Your task to perform on an android device: open a new tab in the chrome app Image 0: 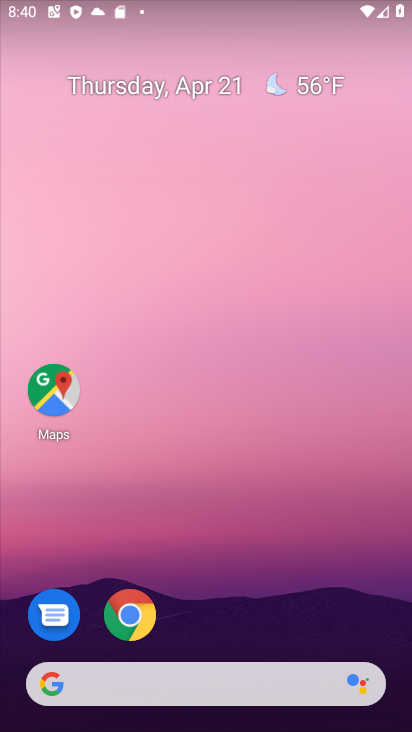
Step 0: click (136, 617)
Your task to perform on an android device: open a new tab in the chrome app Image 1: 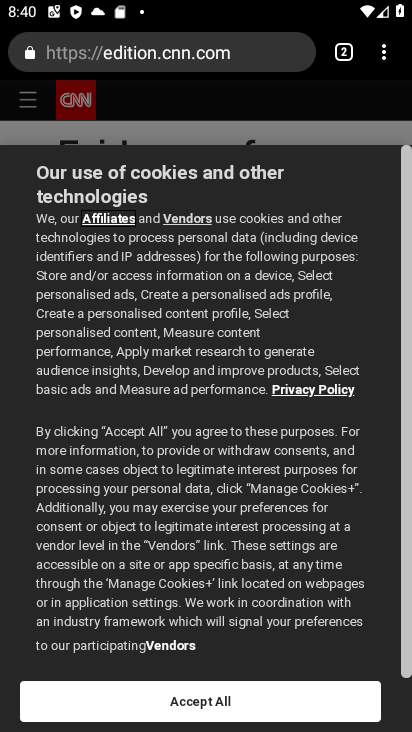
Step 1: click (338, 56)
Your task to perform on an android device: open a new tab in the chrome app Image 2: 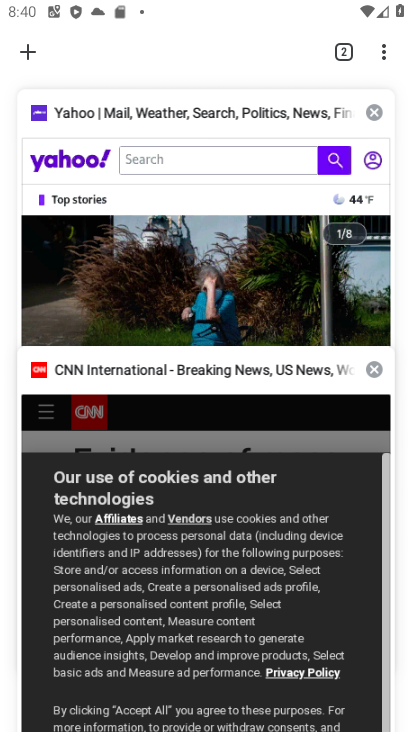
Step 2: click (26, 53)
Your task to perform on an android device: open a new tab in the chrome app Image 3: 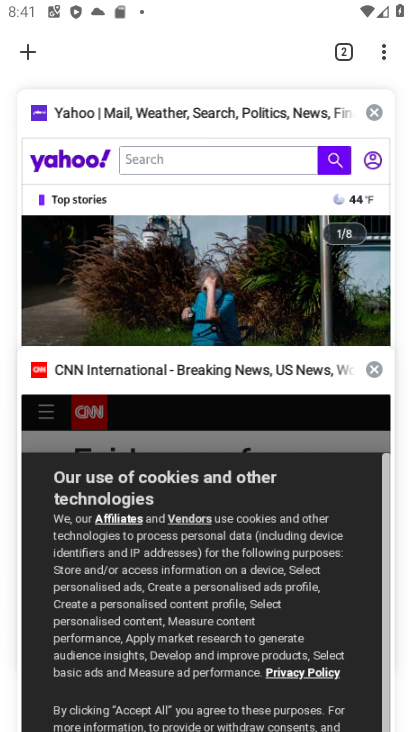
Step 3: click (31, 55)
Your task to perform on an android device: open a new tab in the chrome app Image 4: 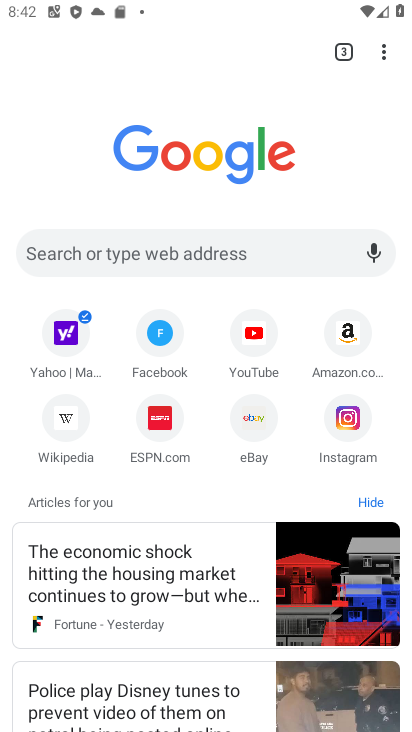
Step 4: task complete